Your task to perform on an android device: What is the news today? Image 0: 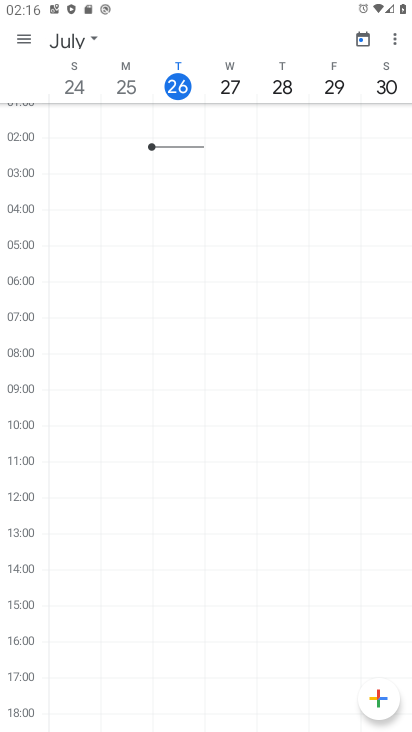
Step 0: press home button
Your task to perform on an android device: What is the news today? Image 1: 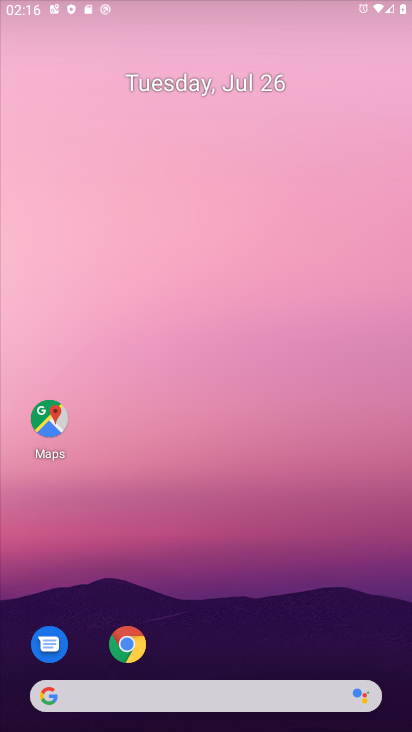
Step 1: drag from (266, 623) to (190, 228)
Your task to perform on an android device: What is the news today? Image 2: 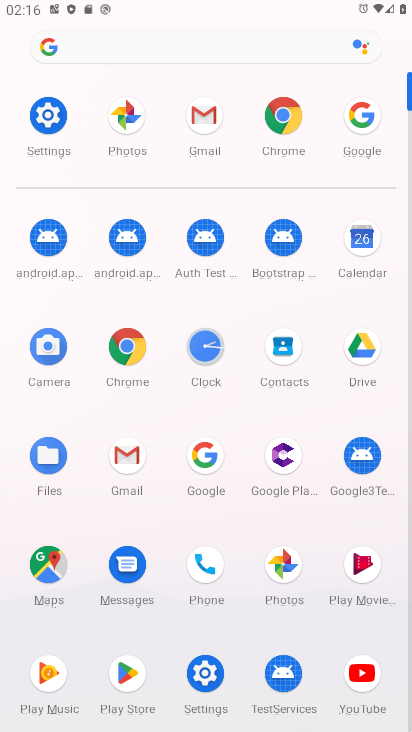
Step 2: click (286, 122)
Your task to perform on an android device: What is the news today? Image 3: 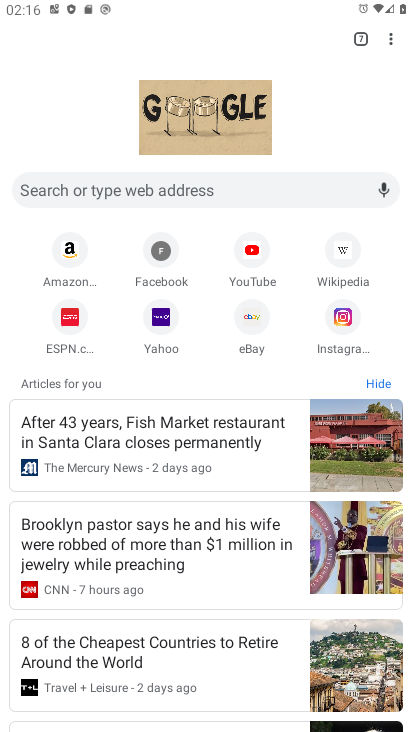
Step 3: click (201, 190)
Your task to perform on an android device: What is the news today? Image 4: 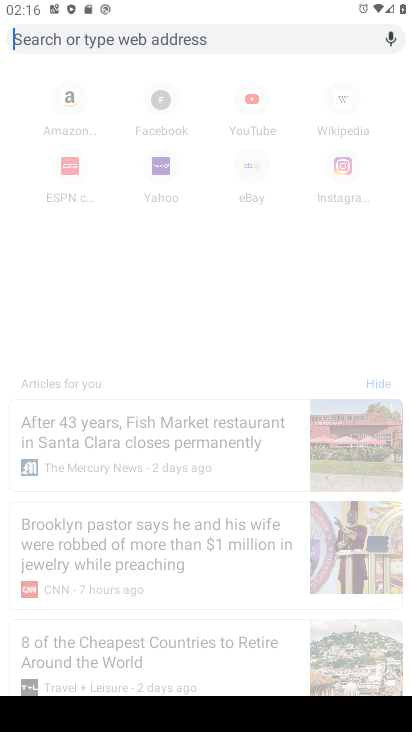
Step 4: type "What is the news today "
Your task to perform on an android device: What is the news today? Image 5: 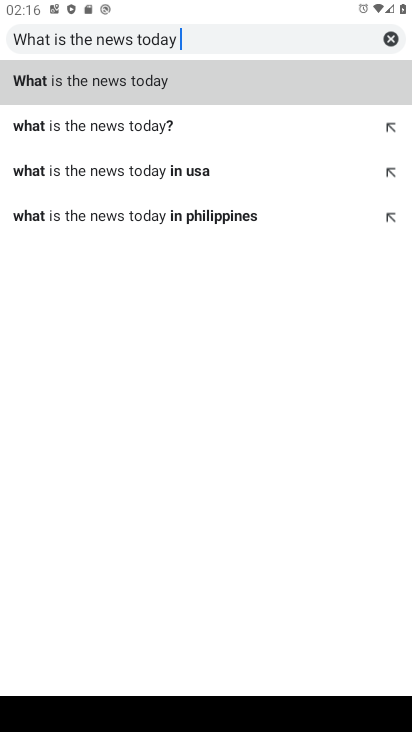
Step 5: click (128, 67)
Your task to perform on an android device: What is the news today? Image 6: 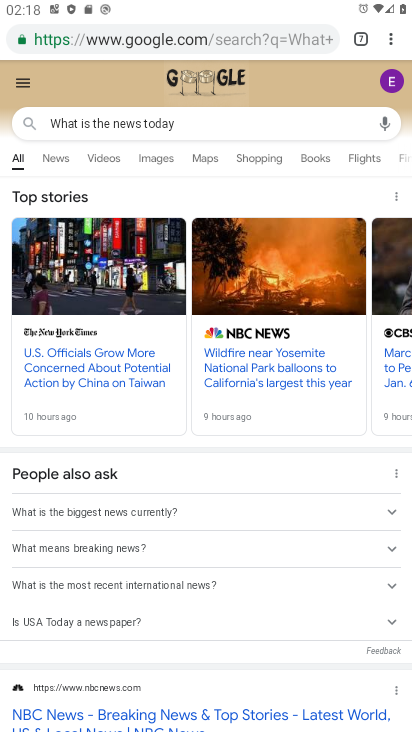
Step 6: task complete